Your task to perform on an android device: empty trash in google photos Image 0: 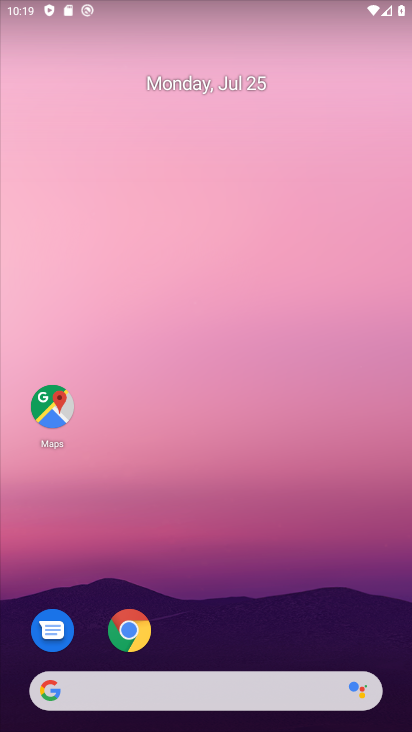
Step 0: drag from (222, 680) to (216, 87)
Your task to perform on an android device: empty trash in google photos Image 1: 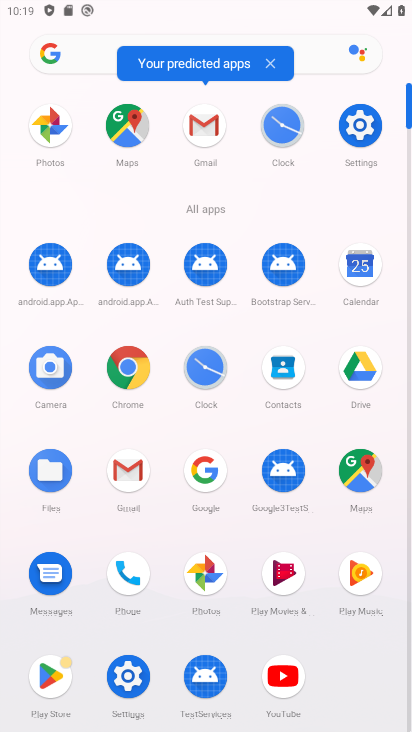
Step 1: click (200, 579)
Your task to perform on an android device: empty trash in google photos Image 2: 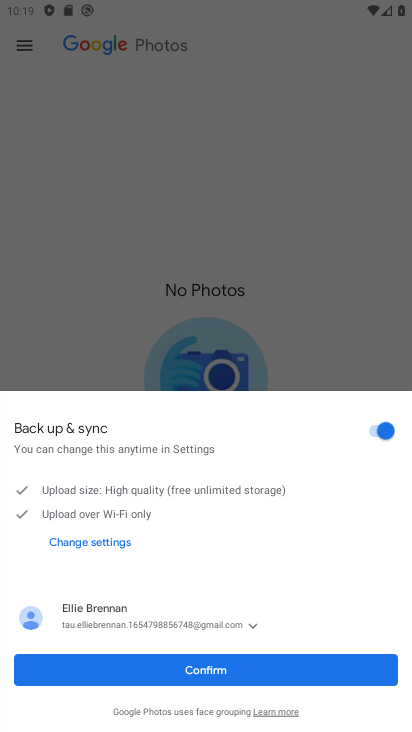
Step 2: click (249, 669)
Your task to perform on an android device: empty trash in google photos Image 3: 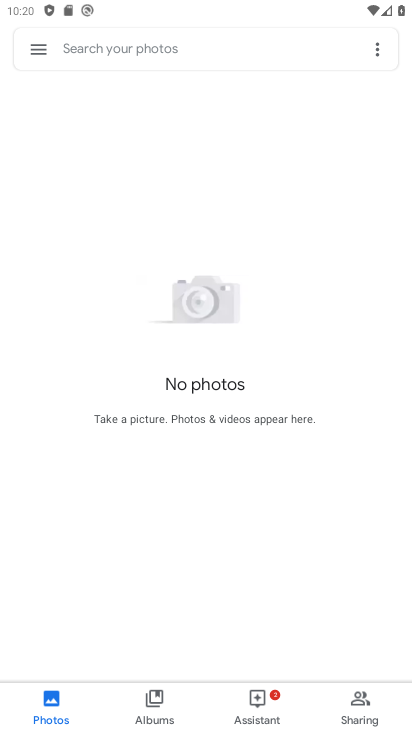
Step 3: click (48, 50)
Your task to perform on an android device: empty trash in google photos Image 4: 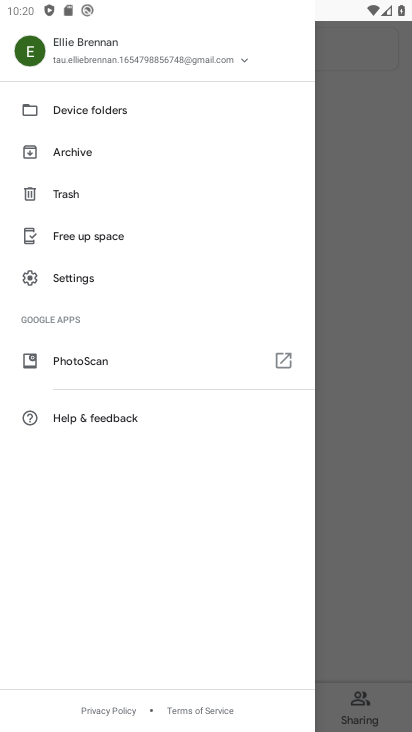
Step 4: click (71, 193)
Your task to perform on an android device: empty trash in google photos Image 5: 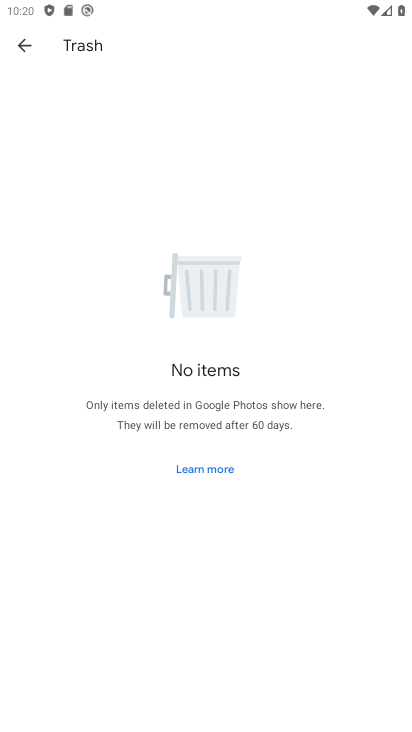
Step 5: task complete